Your task to perform on an android device: Is it going to rain tomorrow? Image 0: 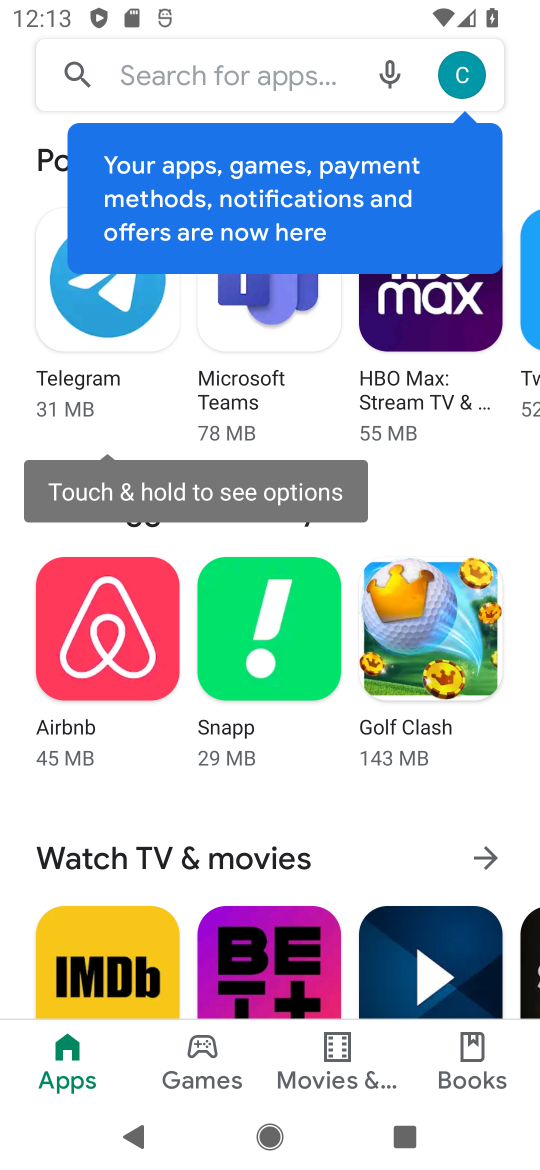
Step 0: press back button
Your task to perform on an android device: Is it going to rain tomorrow? Image 1: 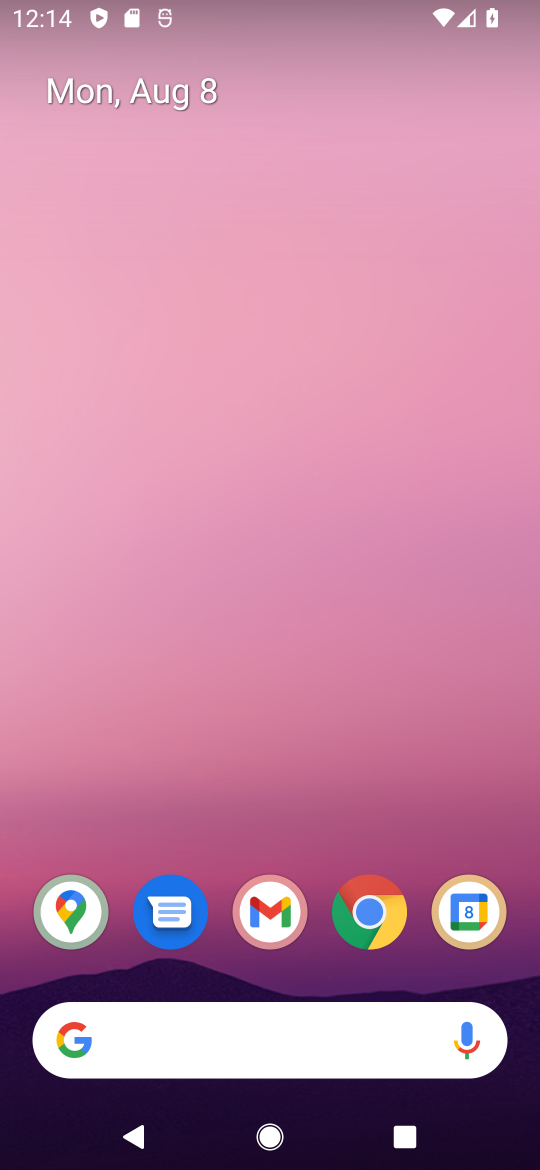
Step 1: click (249, 1045)
Your task to perform on an android device: Is it going to rain tomorrow? Image 2: 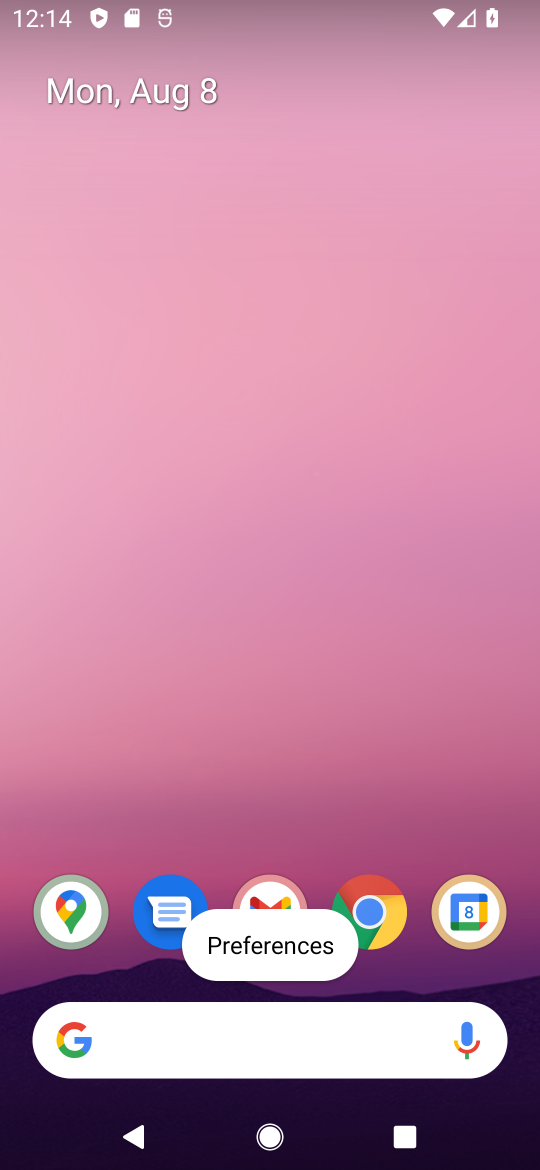
Step 2: click (249, 1045)
Your task to perform on an android device: Is it going to rain tomorrow? Image 3: 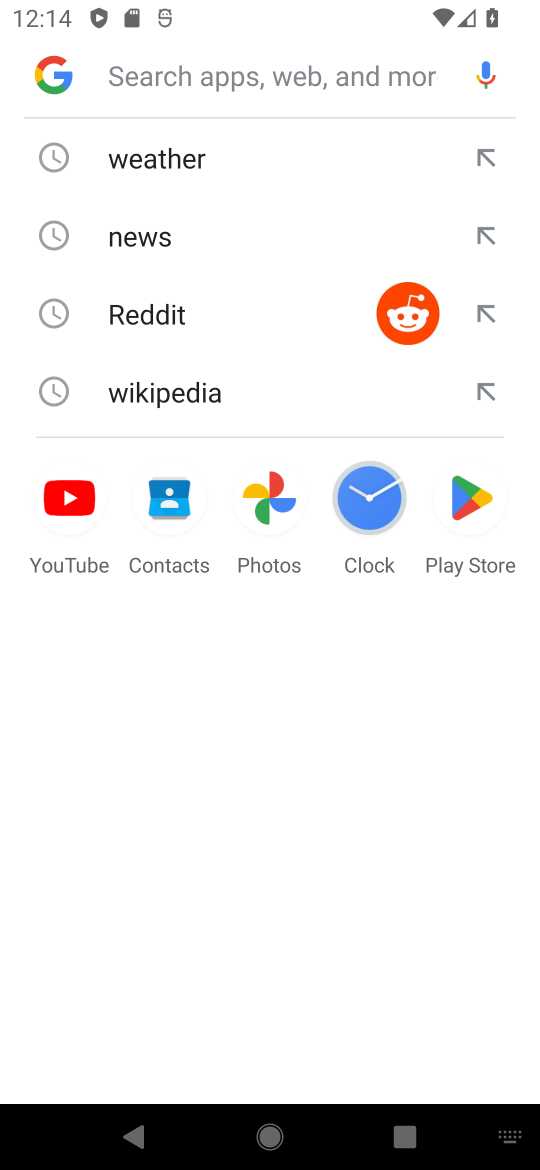
Step 3: click (156, 146)
Your task to perform on an android device: Is it going to rain tomorrow? Image 4: 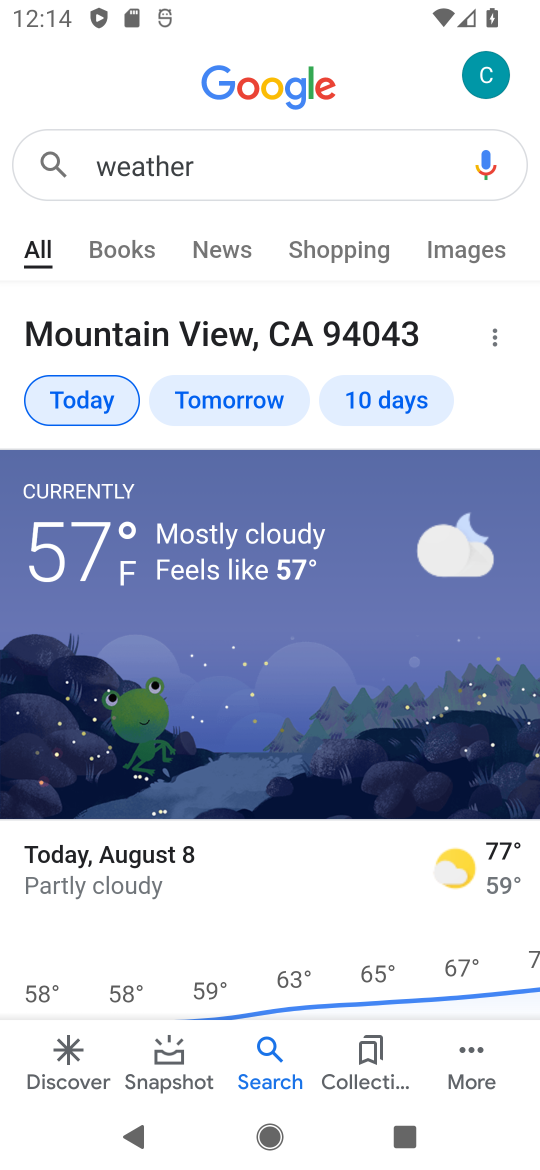
Step 4: click (228, 384)
Your task to perform on an android device: Is it going to rain tomorrow? Image 5: 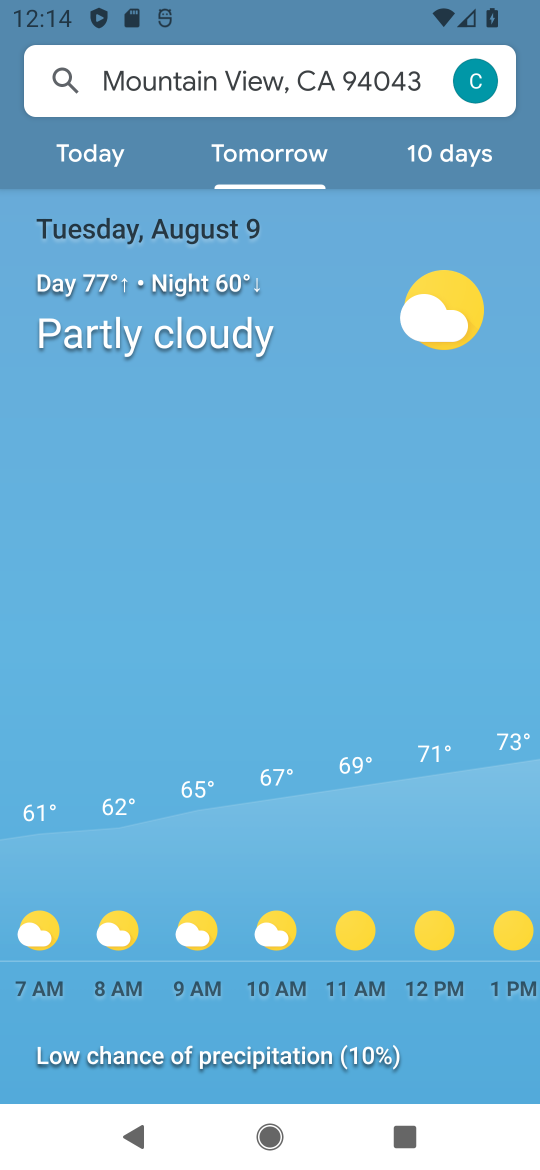
Step 5: task complete